Your task to perform on an android device: Open location settings Image 0: 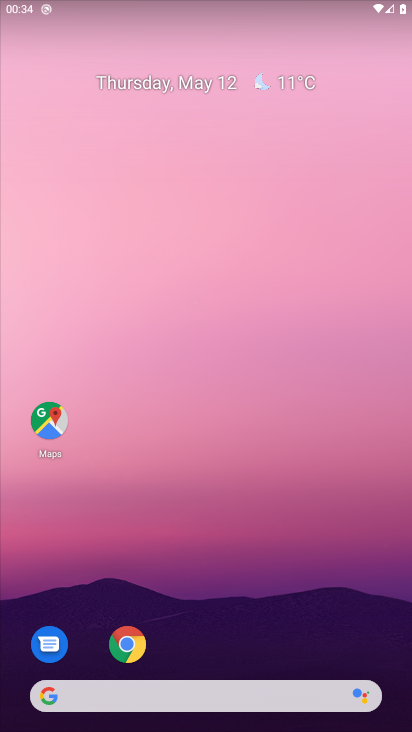
Step 0: drag from (209, 668) to (236, 32)
Your task to perform on an android device: Open location settings Image 1: 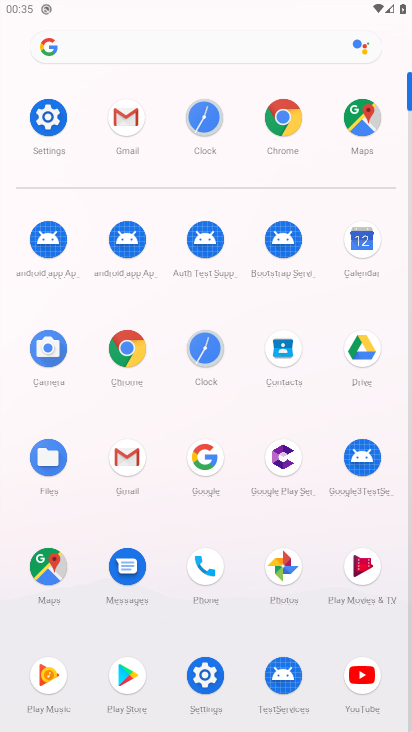
Step 1: click (199, 671)
Your task to perform on an android device: Open location settings Image 2: 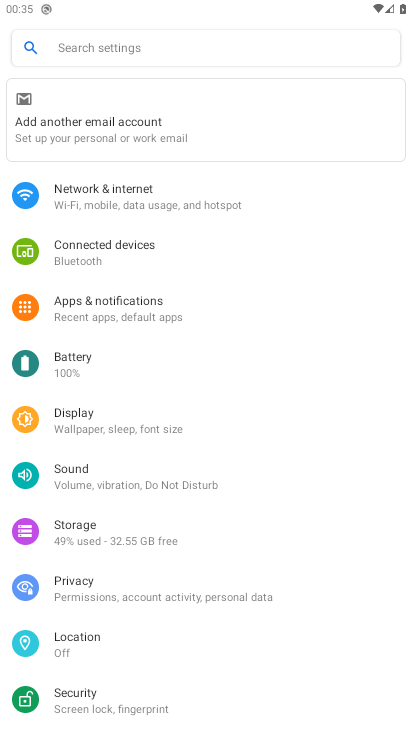
Step 2: click (83, 650)
Your task to perform on an android device: Open location settings Image 3: 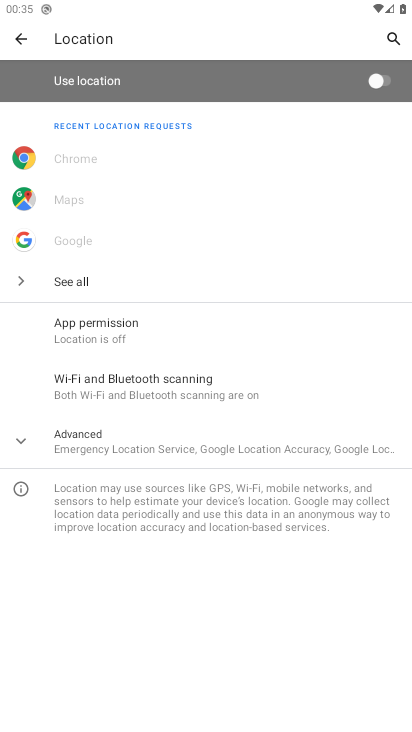
Step 3: click (59, 441)
Your task to perform on an android device: Open location settings Image 4: 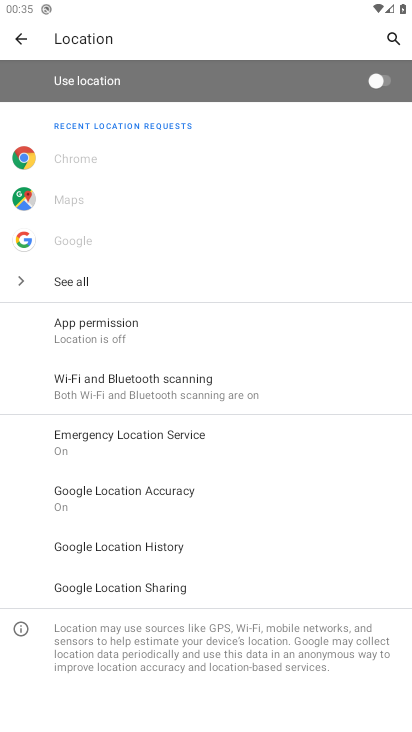
Step 4: task complete